Your task to perform on an android device: Open CNN.com Image 0: 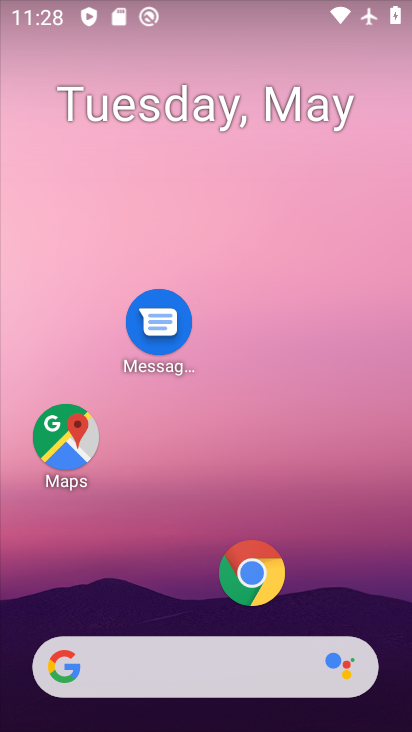
Step 0: drag from (185, 567) to (164, 319)
Your task to perform on an android device: Open CNN.com Image 1: 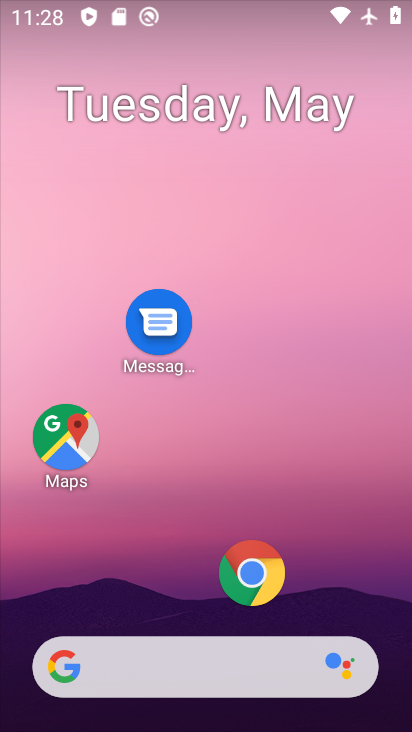
Step 1: drag from (212, 635) to (237, 230)
Your task to perform on an android device: Open CNN.com Image 2: 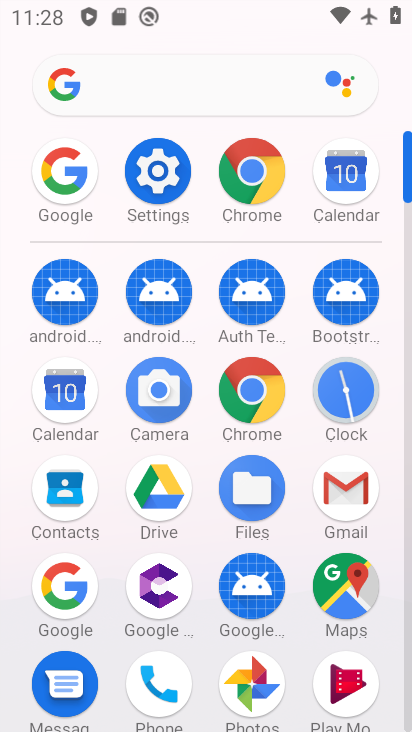
Step 2: click (54, 587)
Your task to perform on an android device: Open CNN.com Image 3: 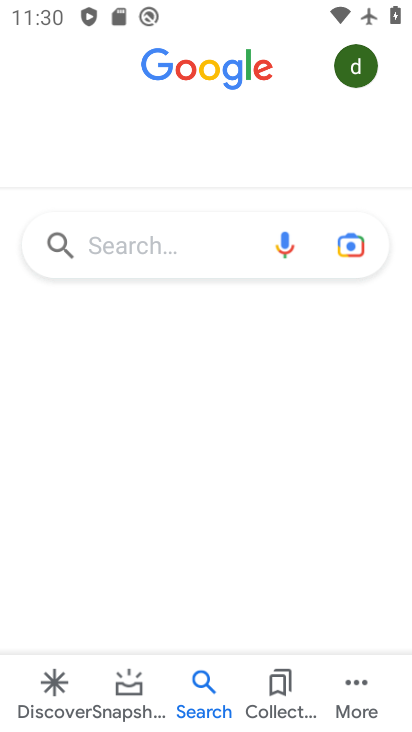
Step 3: click (108, 249)
Your task to perform on an android device: Open CNN.com Image 4: 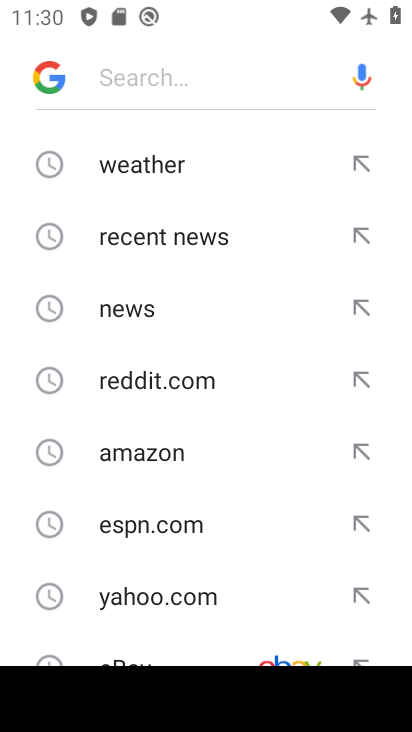
Step 4: drag from (143, 616) to (128, 281)
Your task to perform on an android device: Open CNN.com Image 5: 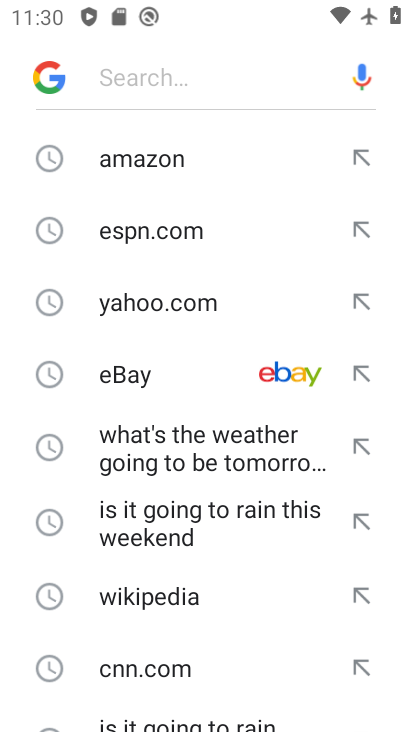
Step 5: click (147, 668)
Your task to perform on an android device: Open CNN.com Image 6: 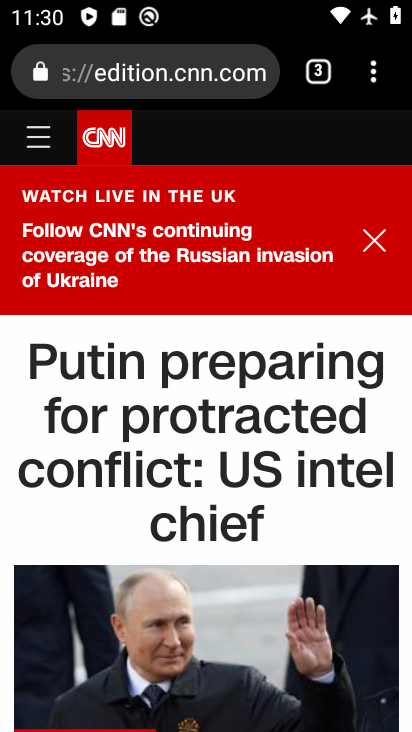
Step 6: task complete